Your task to perform on an android device: See recent photos Image 0: 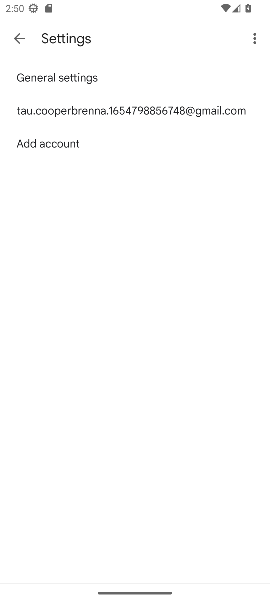
Step 0: click (7, 31)
Your task to perform on an android device: See recent photos Image 1: 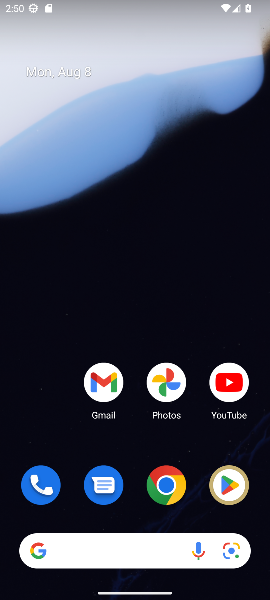
Step 1: drag from (125, 581) to (85, 118)
Your task to perform on an android device: See recent photos Image 2: 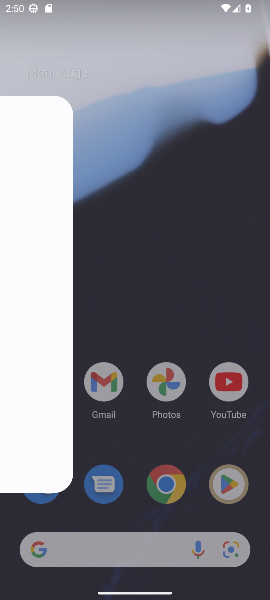
Step 2: drag from (104, 231) to (106, 103)
Your task to perform on an android device: See recent photos Image 3: 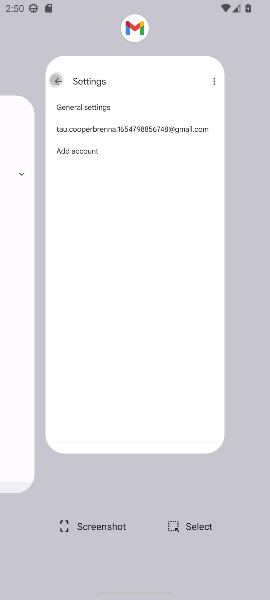
Step 3: drag from (196, 438) to (175, 150)
Your task to perform on an android device: See recent photos Image 4: 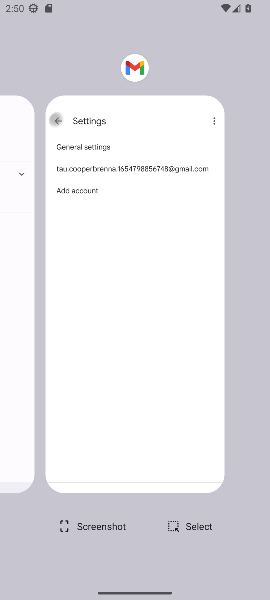
Step 4: press back button
Your task to perform on an android device: See recent photos Image 5: 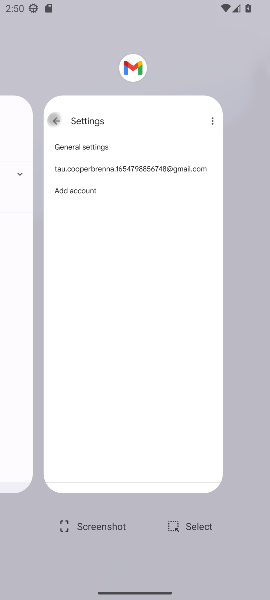
Step 5: press back button
Your task to perform on an android device: See recent photos Image 6: 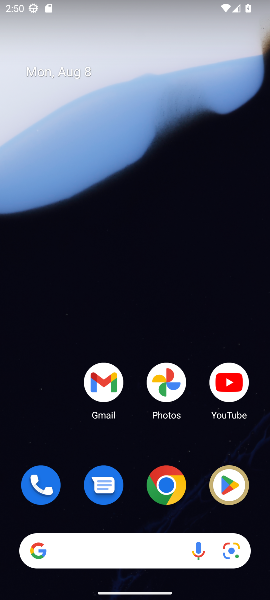
Step 6: drag from (134, 454) to (127, 226)
Your task to perform on an android device: See recent photos Image 7: 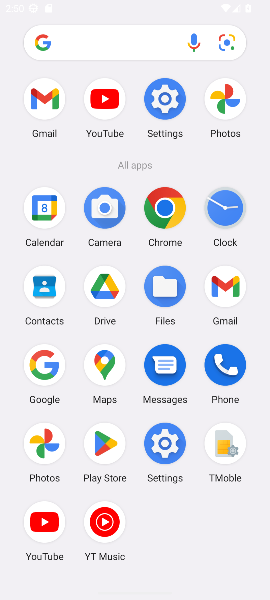
Step 7: drag from (190, 488) to (135, 285)
Your task to perform on an android device: See recent photos Image 8: 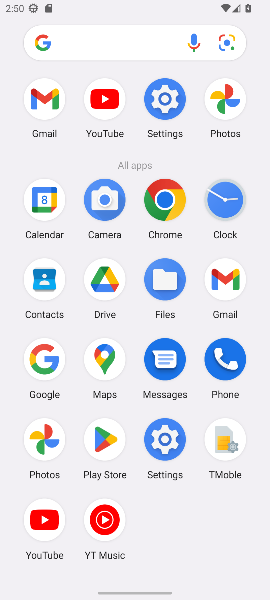
Step 8: drag from (118, 526) to (93, 295)
Your task to perform on an android device: See recent photos Image 9: 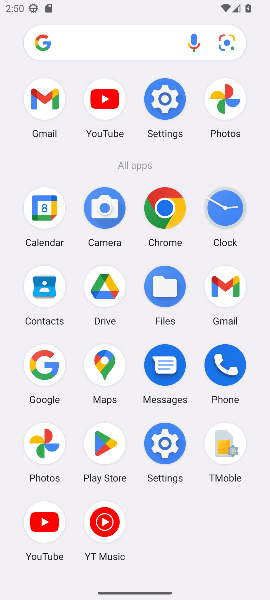
Step 9: click (46, 445)
Your task to perform on an android device: See recent photos Image 10: 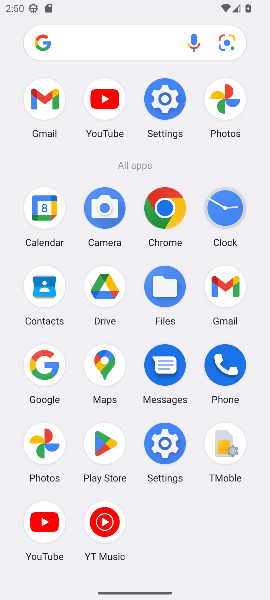
Step 10: click (46, 445)
Your task to perform on an android device: See recent photos Image 11: 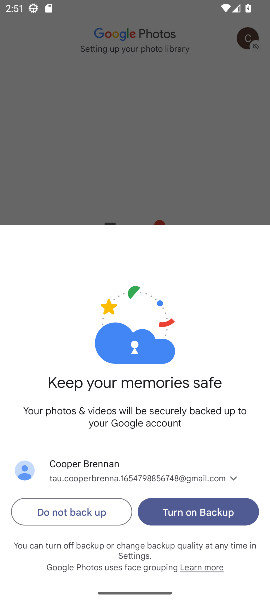
Step 11: click (75, 510)
Your task to perform on an android device: See recent photos Image 12: 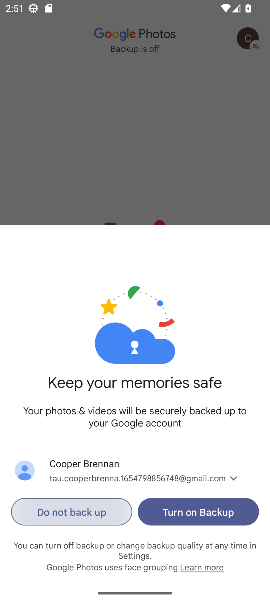
Step 12: click (75, 510)
Your task to perform on an android device: See recent photos Image 13: 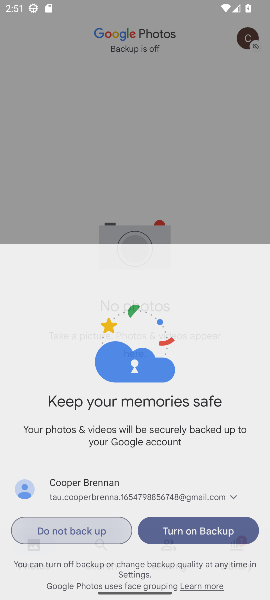
Step 13: click (79, 509)
Your task to perform on an android device: See recent photos Image 14: 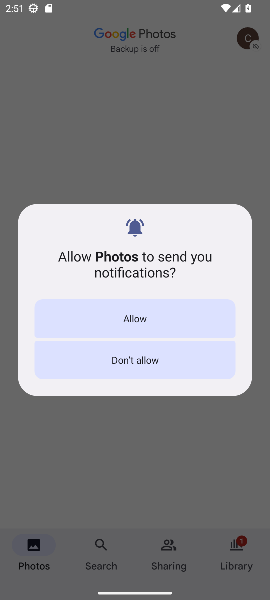
Step 14: click (145, 319)
Your task to perform on an android device: See recent photos Image 15: 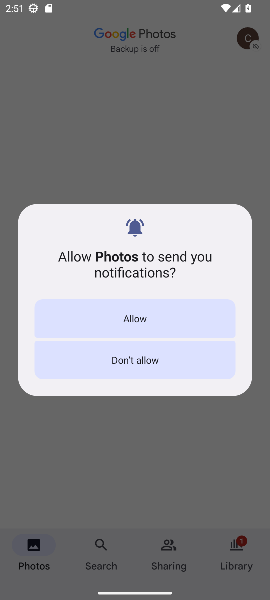
Step 15: click (145, 319)
Your task to perform on an android device: See recent photos Image 16: 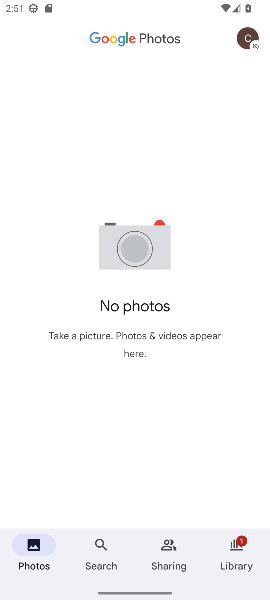
Step 16: drag from (129, 418) to (121, 162)
Your task to perform on an android device: See recent photos Image 17: 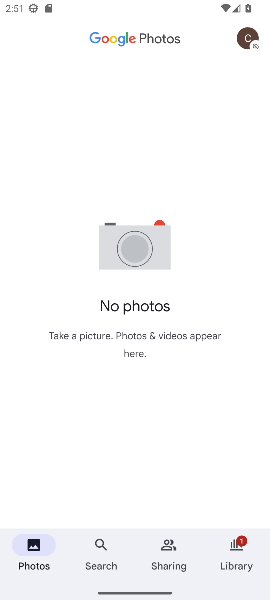
Step 17: click (110, 96)
Your task to perform on an android device: See recent photos Image 18: 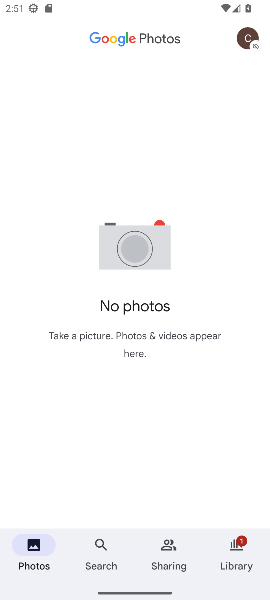
Step 18: drag from (141, 253) to (141, 157)
Your task to perform on an android device: See recent photos Image 19: 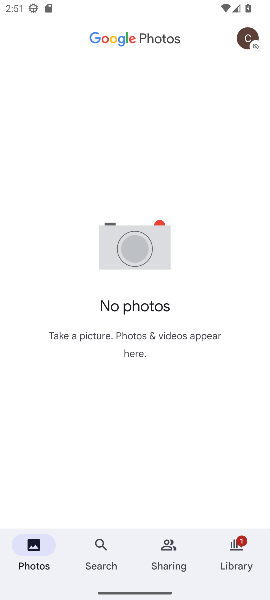
Step 19: drag from (158, 442) to (91, 72)
Your task to perform on an android device: See recent photos Image 20: 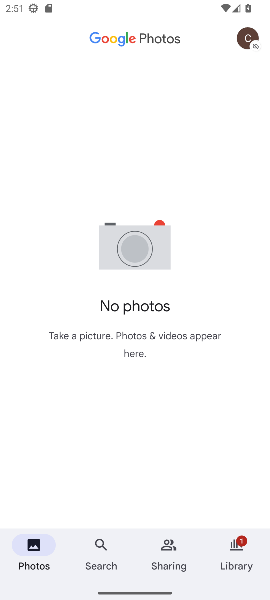
Step 20: drag from (106, 375) to (84, 85)
Your task to perform on an android device: See recent photos Image 21: 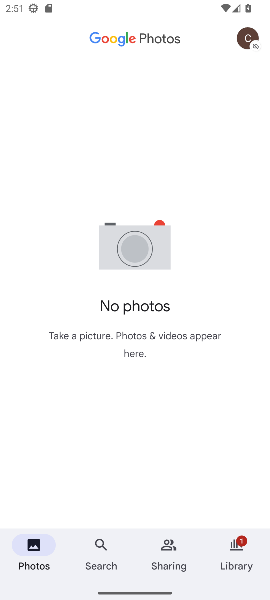
Step 21: click (141, 166)
Your task to perform on an android device: See recent photos Image 22: 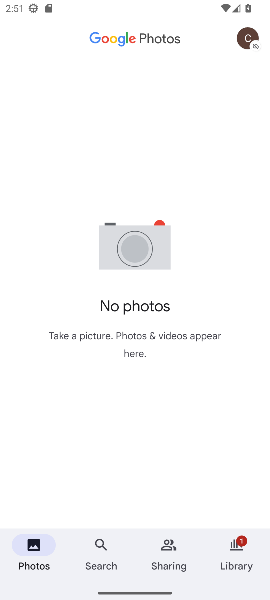
Step 22: drag from (205, 385) to (182, 165)
Your task to perform on an android device: See recent photos Image 23: 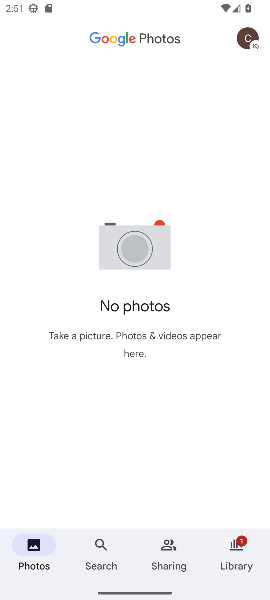
Step 23: drag from (67, 203) to (153, 143)
Your task to perform on an android device: See recent photos Image 24: 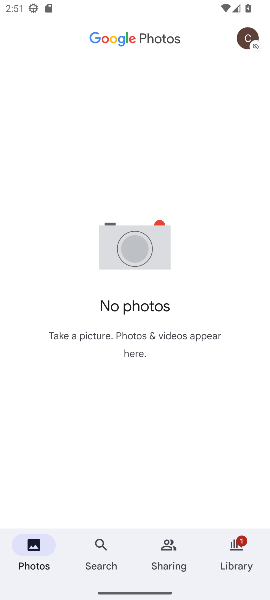
Step 24: drag from (151, 443) to (120, 132)
Your task to perform on an android device: See recent photos Image 25: 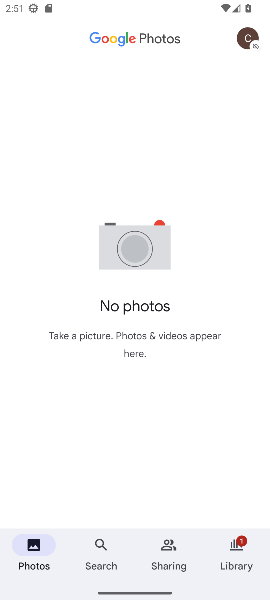
Step 25: drag from (123, 505) to (78, 72)
Your task to perform on an android device: See recent photos Image 26: 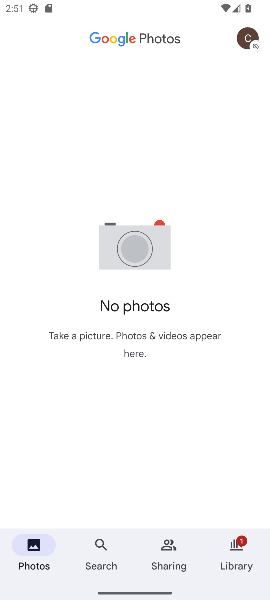
Step 26: click (111, 163)
Your task to perform on an android device: See recent photos Image 27: 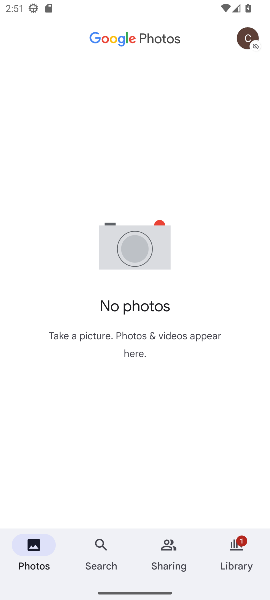
Step 27: drag from (174, 406) to (135, 31)
Your task to perform on an android device: See recent photos Image 28: 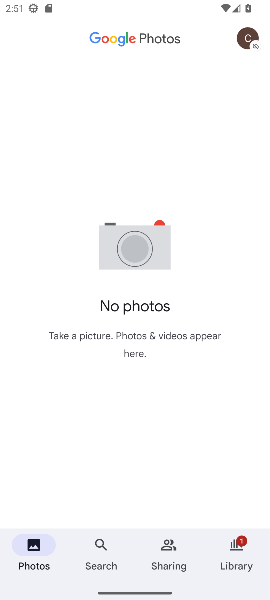
Step 28: drag from (163, 342) to (145, 153)
Your task to perform on an android device: See recent photos Image 29: 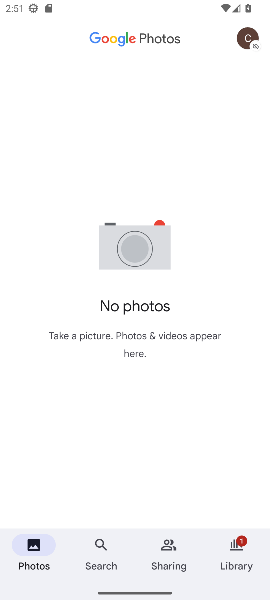
Step 29: drag from (157, 433) to (57, 224)
Your task to perform on an android device: See recent photos Image 30: 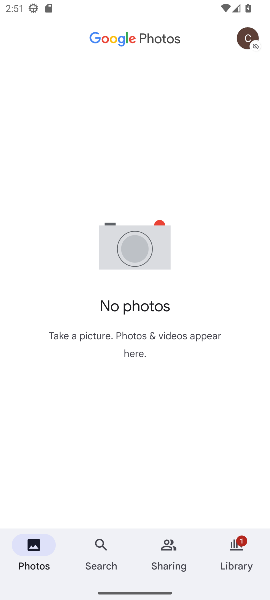
Step 30: click (34, 539)
Your task to perform on an android device: See recent photos Image 31: 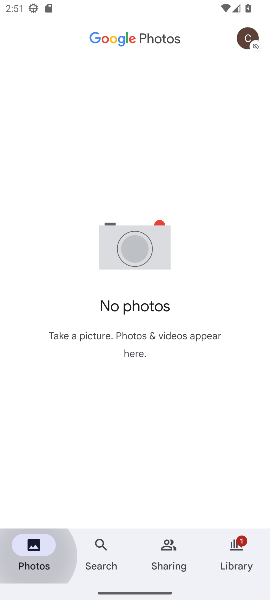
Step 31: task complete